Your task to perform on an android device: turn off sleep mode Image 0: 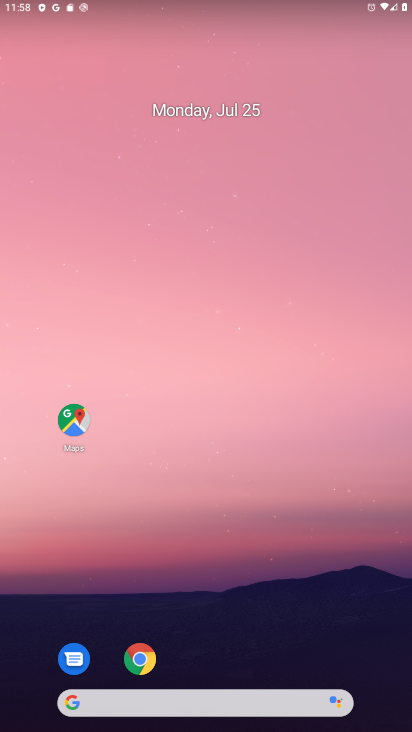
Step 0: drag from (236, 603) to (148, 27)
Your task to perform on an android device: turn off sleep mode Image 1: 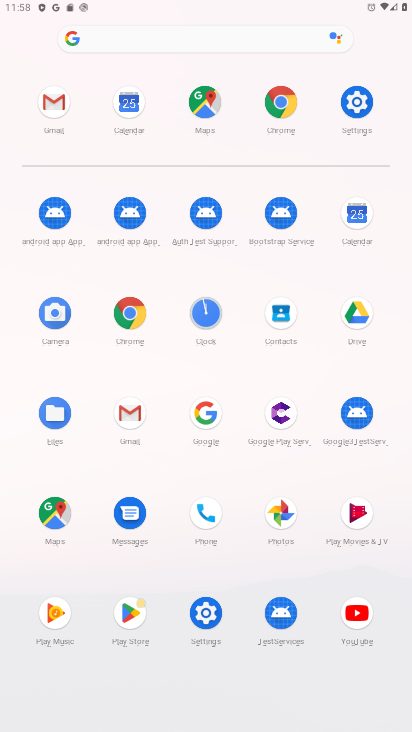
Step 1: click (356, 111)
Your task to perform on an android device: turn off sleep mode Image 2: 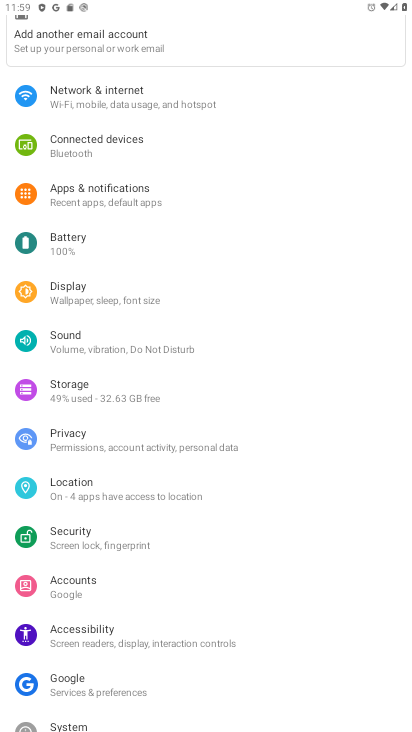
Step 2: click (70, 288)
Your task to perform on an android device: turn off sleep mode Image 3: 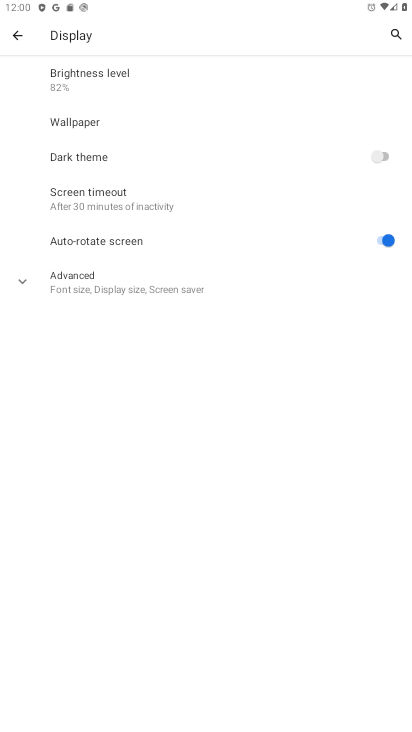
Step 3: task complete